Your task to perform on an android device: turn off location Image 0: 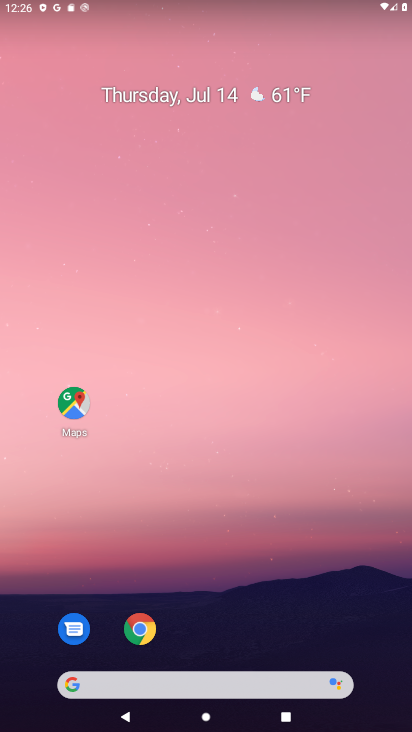
Step 0: drag from (216, 638) to (216, 176)
Your task to perform on an android device: turn off location Image 1: 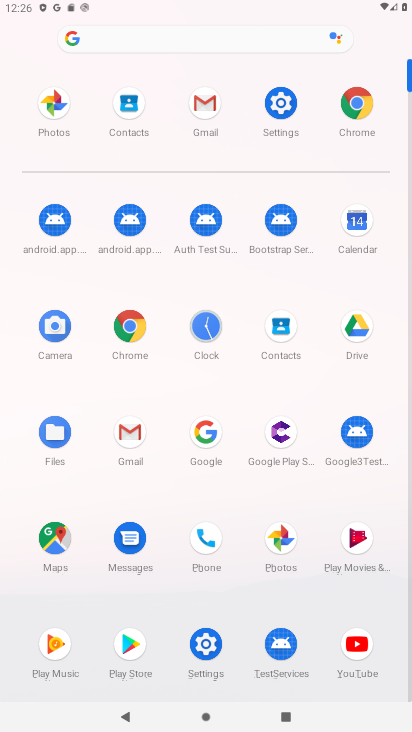
Step 1: click (294, 111)
Your task to perform on an android device: turn off location Image 2: 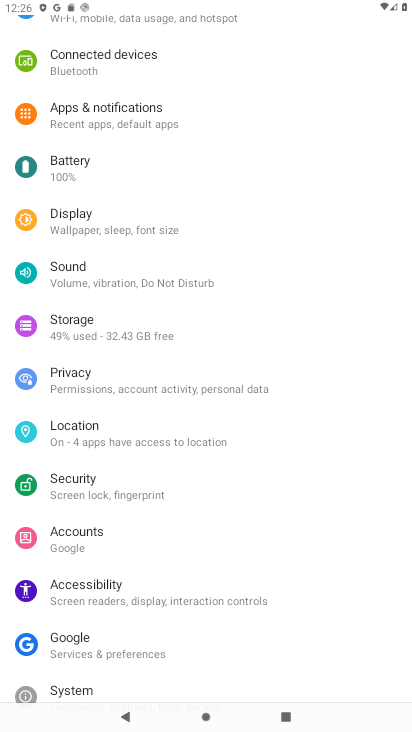
Step 2: click (72, 424)
Your task to perform on an android device: turn off location Image 3: 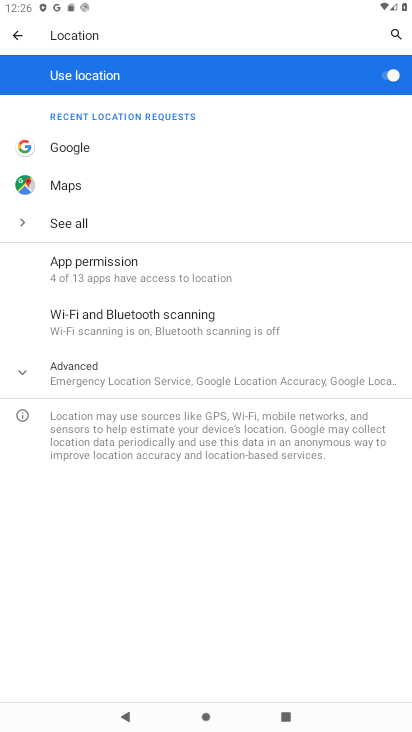
Step 3: click (393, 75)
Your task to perform on an android device: turn off location Image 4: 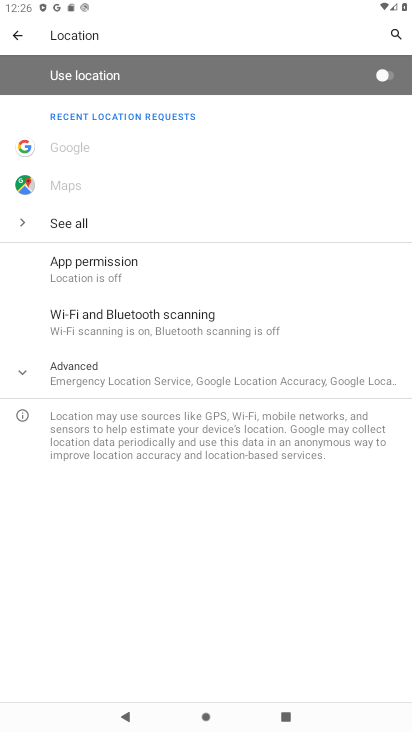
Step 4: task complete